Your task to perform on an android device: turn pop-ups on in chrome Image 0: 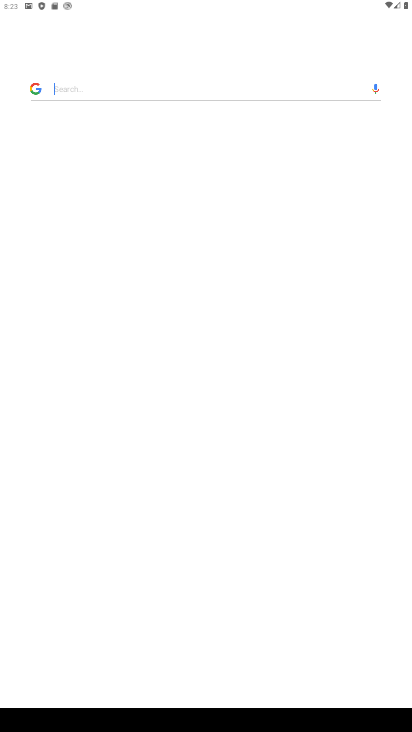
Step 0: press home button
Your task to perform on an android device: turn pop-ups on in chrome Image 1: 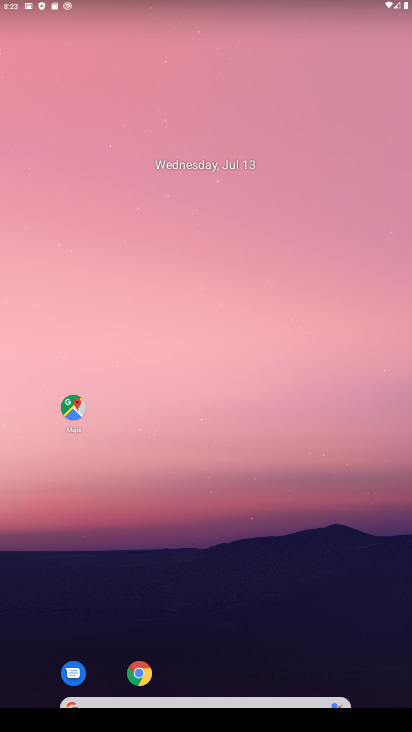
Step 1: drag from (205, 688) to (156, 403)
Your task to perform on an android device: turn pop-ups on in chrome Image 2: 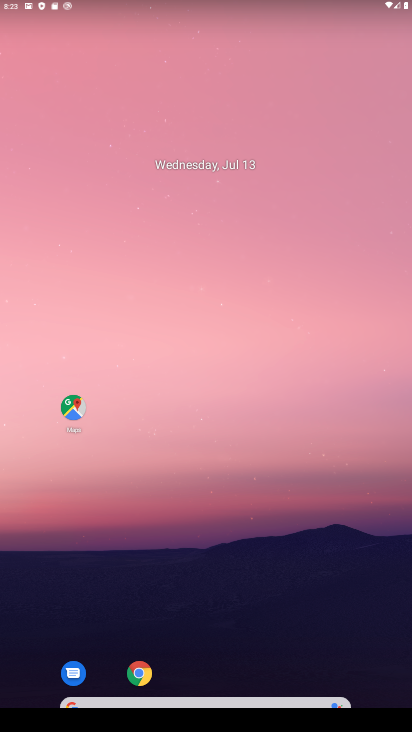
Step 2: drag from (187, 688) to (138, 287)
Your task to perform on an android device: turn pop-ups on in chrome Image 3: 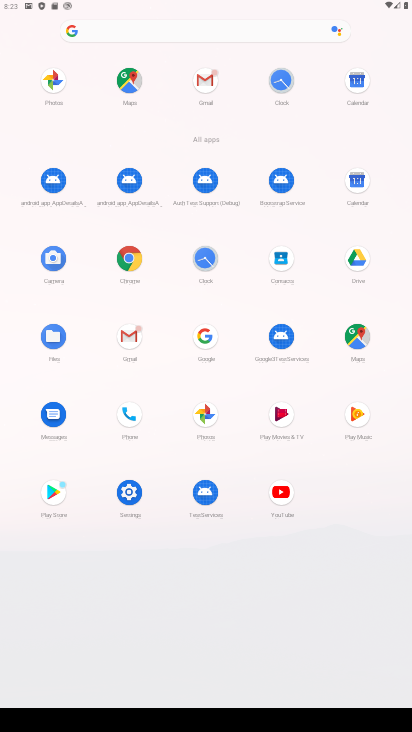
Step 3: click (119, 260)
Your task to perform on an android device: turn pop-ups on in chrome Image 4: 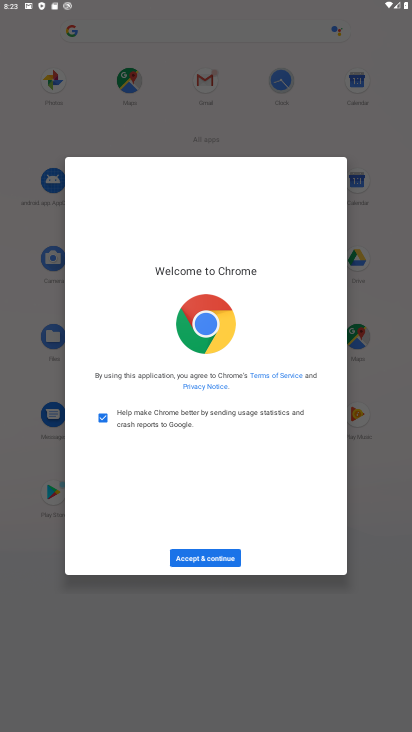
Step 4: click (215, 556)
Your task to perform on an android device: turn pop-ups on in chrome Image 5: 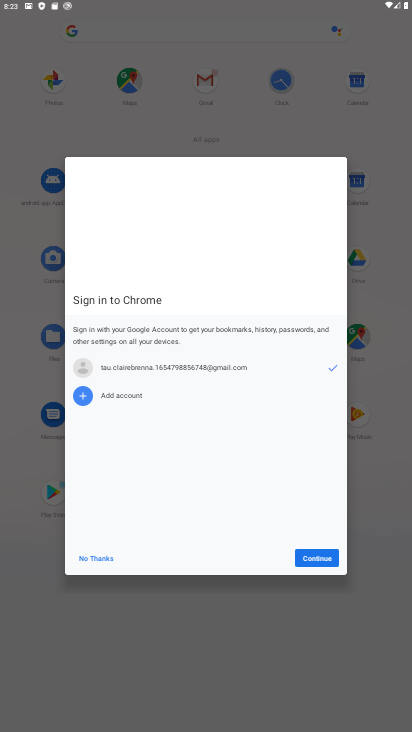
Step 5: click (302, 562)
Your task to perform on an android device: turn pop-ups on in chrome Image 6: 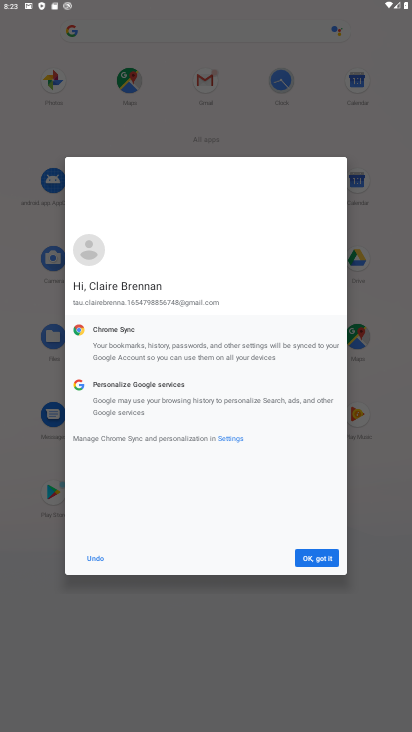
Step 6: click (302, 562)
Your task to perform on an android device: turn pop-ups on in chrome Image 7: 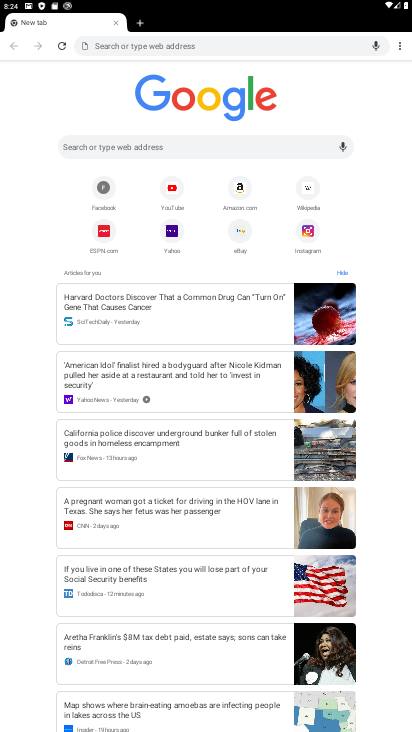
Step 7: click (396, 47)
Your task to perform on an android device: turn pop-ups on in chrome Image 8: 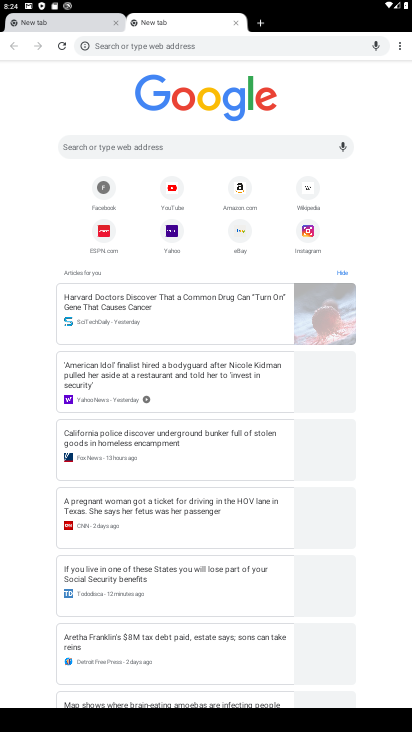
Step 8: click (398, 47)
Your task to perform on an android device: turn pop-ups on in chrome Image 9: 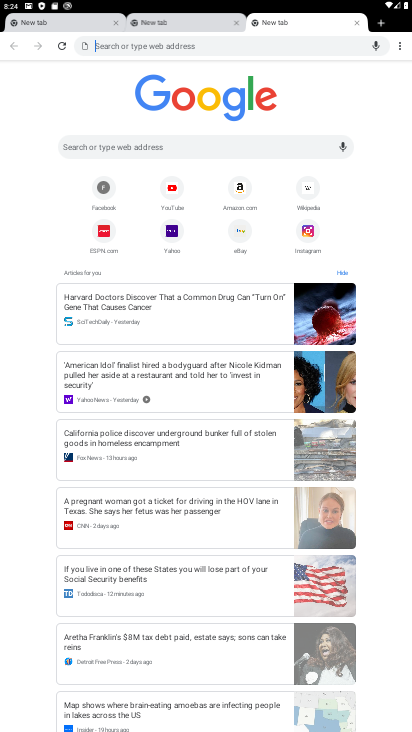
Step 9: click (400, 47)
Your task to perform on an android device: turn pop-ups on in chrome Image 10: 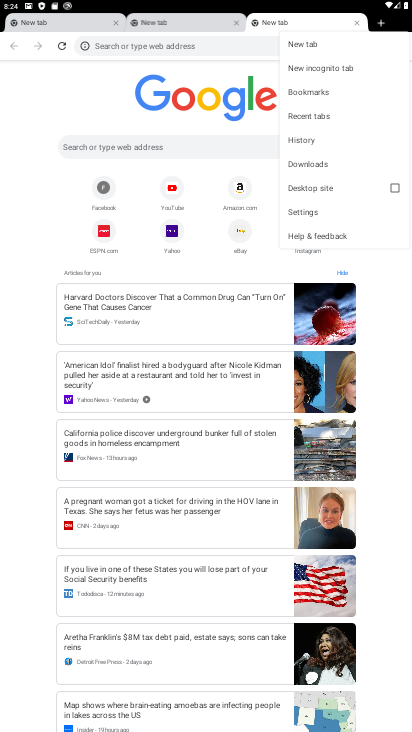
Step 10: click (305, 211)
Your task to perform on an android device: turn pop-ups on in chrome Image 11: 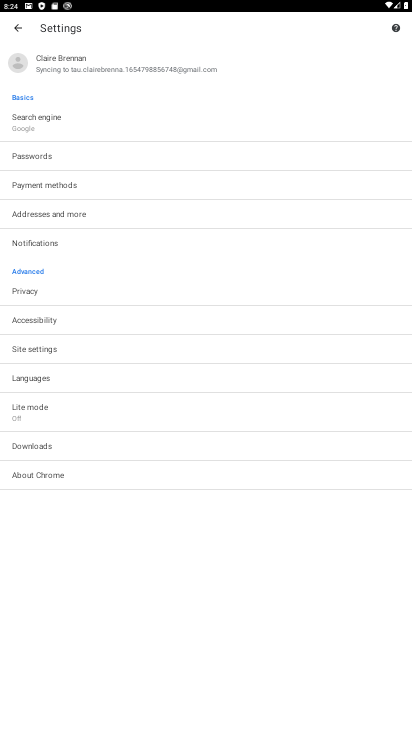
Step 11: click (37, 350)
Your task to perform on an android device: turn pop-ups on in chrome Image 12: 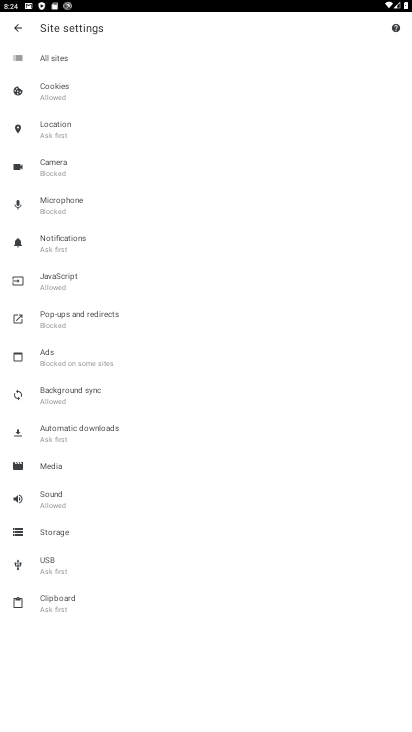
Step 12: click (70, 332)
Your task to perform on an android device: turn pop-ups on in chrome Image 13: 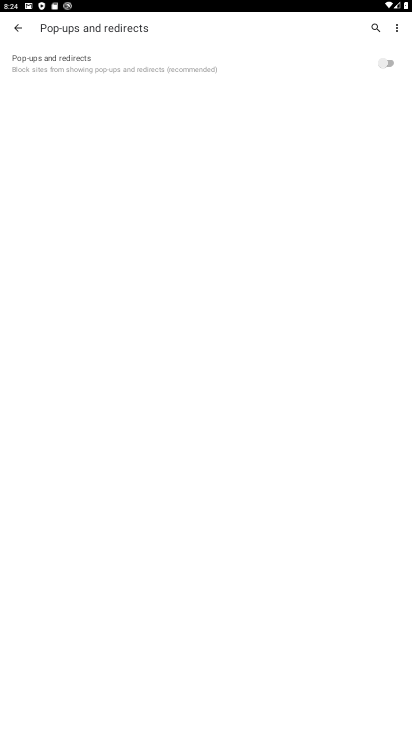
Step 13: click (391, 58)
Your task to perform on an android device: turn pop-ups on in chrome Image 14: 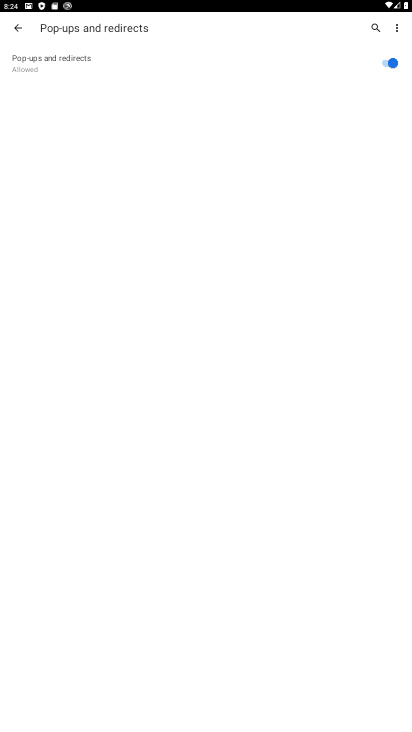
Step 14: task complete